Your task to perform on an android device: Clear the shopping cart on newegg.com. Search for "macbook pro" on newegg.com, select the first entry, add it to the cart, then select checkout. Image 0: 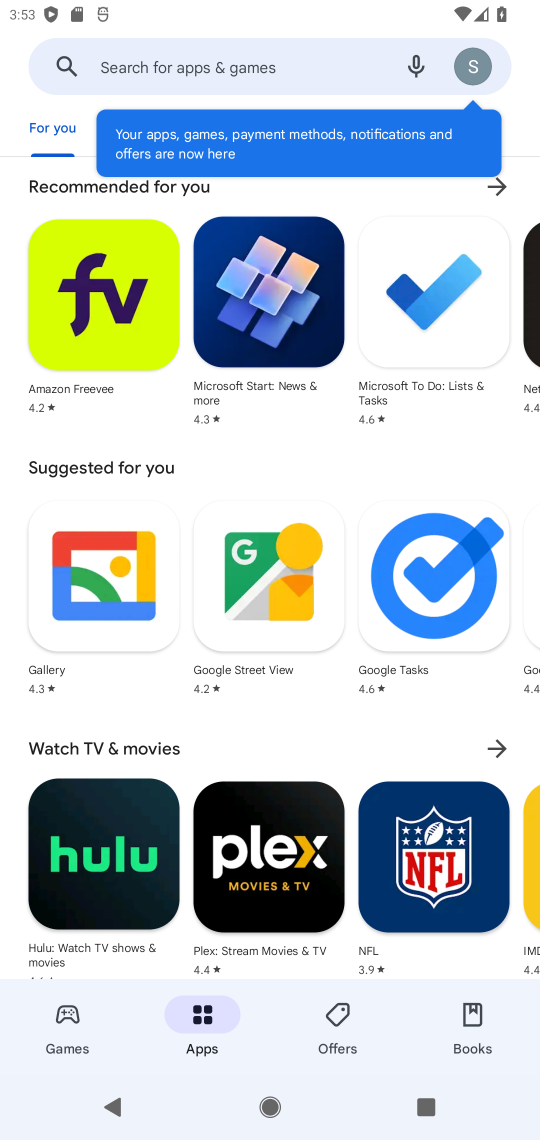
Step 0: press home button
Your task to perform on an android device: Clear the shopping cart on newegg.com. Search for "macbook pro" on newegg.com, select the first entry, add it to the cart, then select checkout. Image 1: 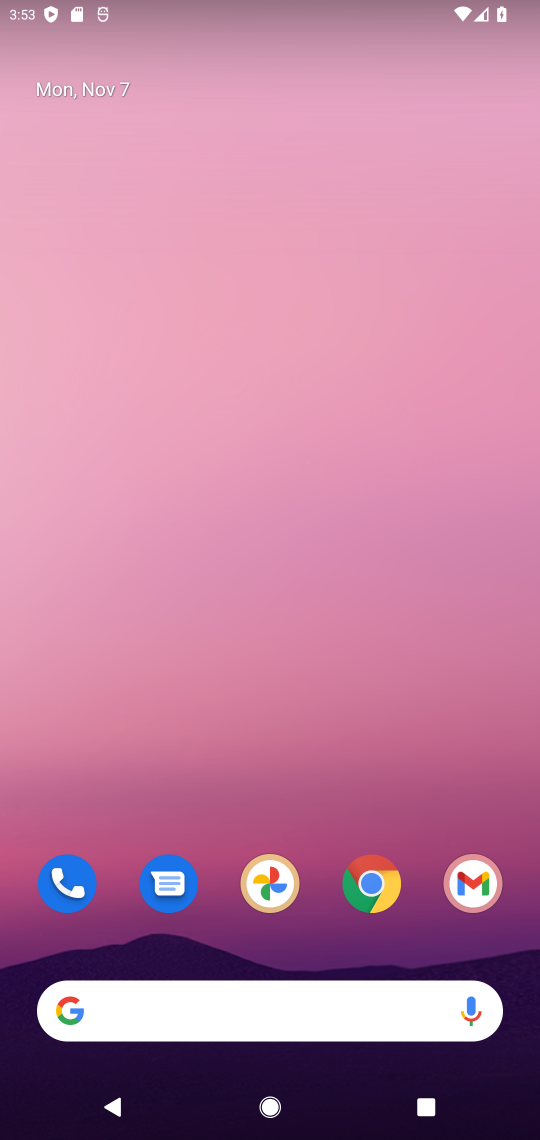
Step 1: click (369, 882)
Your task to perform on an android device: Clear the shopping cart on newegg.com. Search for "macbook pro" on newegg.com, select the first entry, add it to the cart, then select checkout. Image 2: 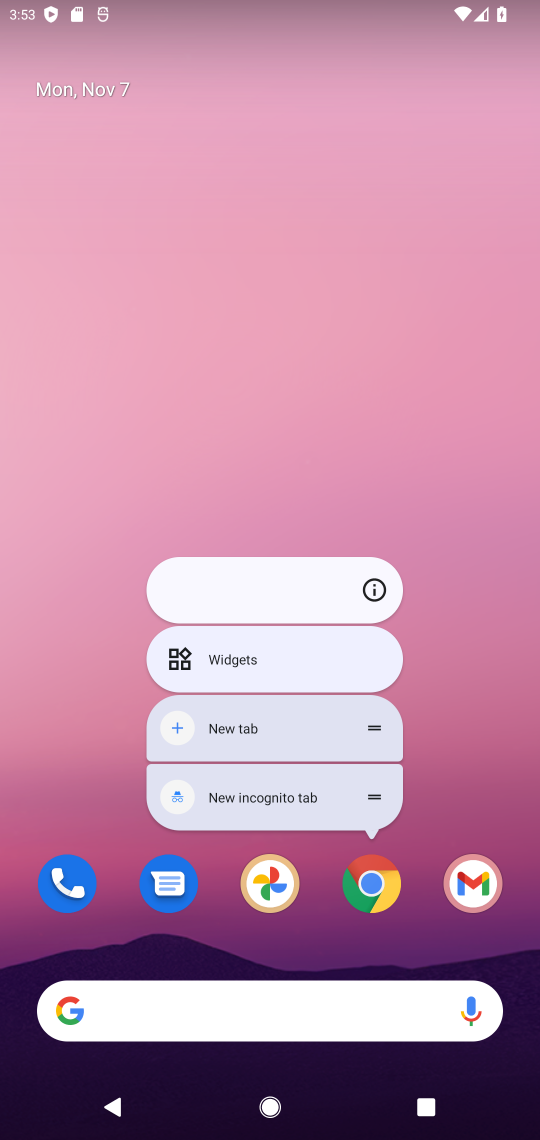
Step 2: click (368, 884)
Your task to perform on an android device: Clear the shopping cart on newegg.com. Search for "macbook pro" on newegg.com, select the first entry, add it to the cart, then select checkout. Image 3: 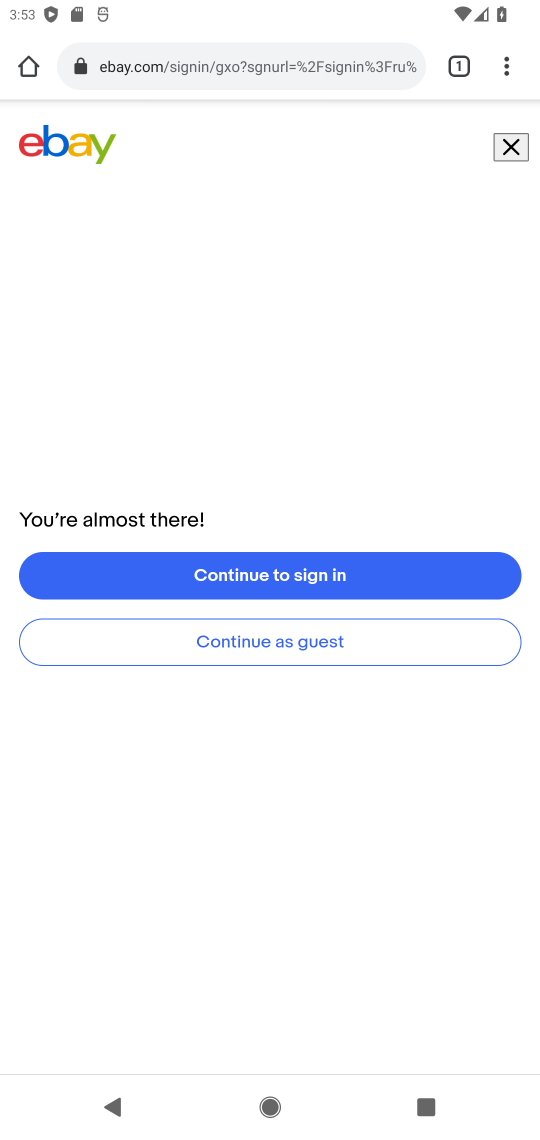
Step 3: click (340, 63)
Your task to perform on an android device: Clear the shopping cart on newegg.com. Search for "macbook pro" on newegg.com, select the first entry, add it to the cart, then select checkout. Image 4: 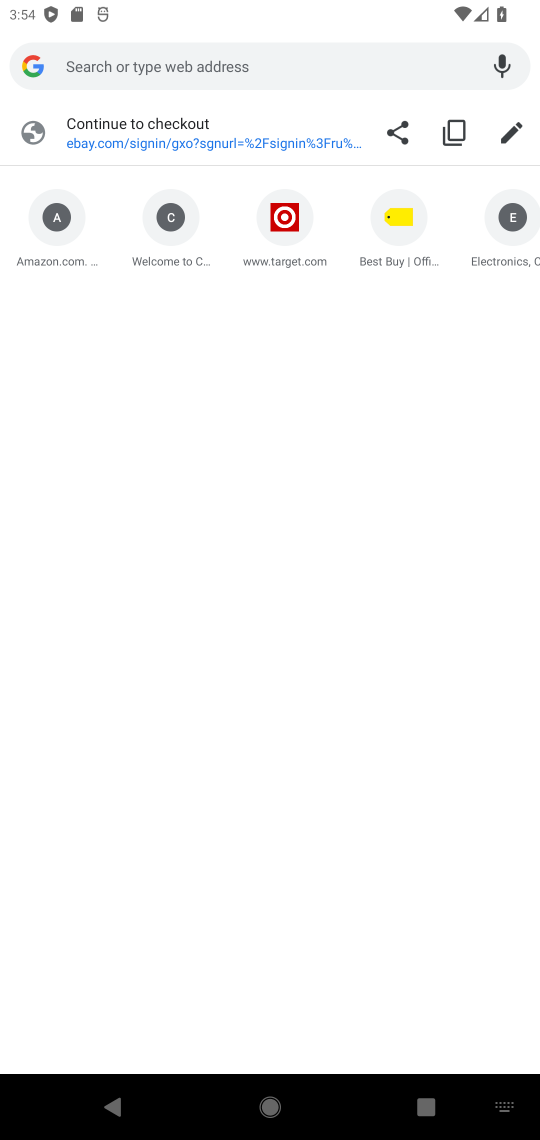
Step 4: type "newegg"
Your task to perform on an android device: Clear the shopping cart on newegg.com. Search for "macbook pro" on newegg.com, select the first entry, add it to the cart, then select checkout. Image 5: 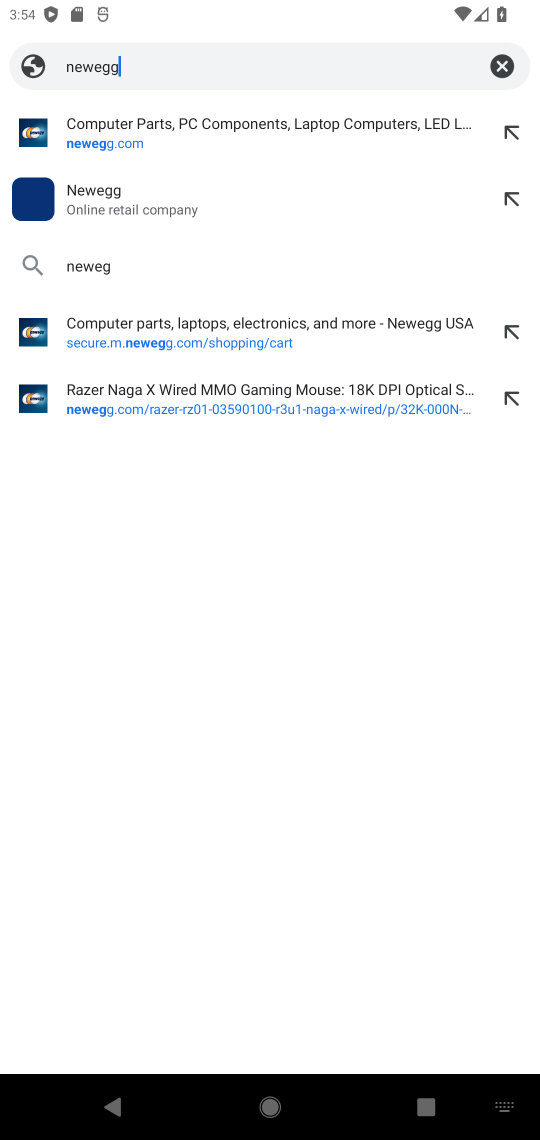
Step 5: press enter
Your task to perform on an android device: Clear the shopping cart on newegg.com. Search for "macbook pro" on newegg.com, select the first entry, add it to the cart, then select checkout. Image 6: 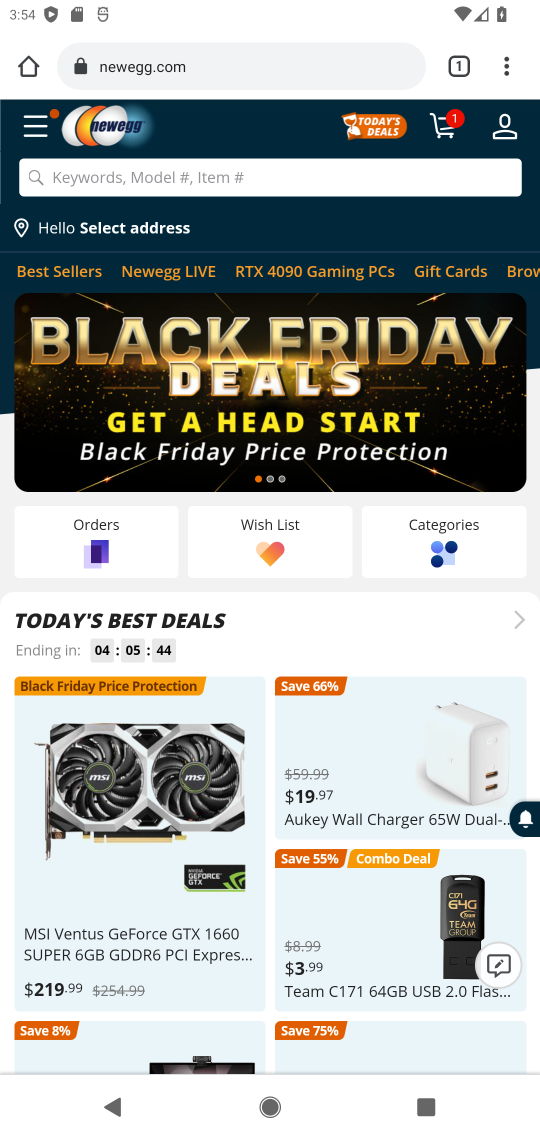
Step 6: click (151, 172)
Your task to perform on an android device: Clear the shopping cart on newegg.com. Search for "macbook pro" on newegg.com, select the first entry, add it to the cart, then select checkout. Image 7: 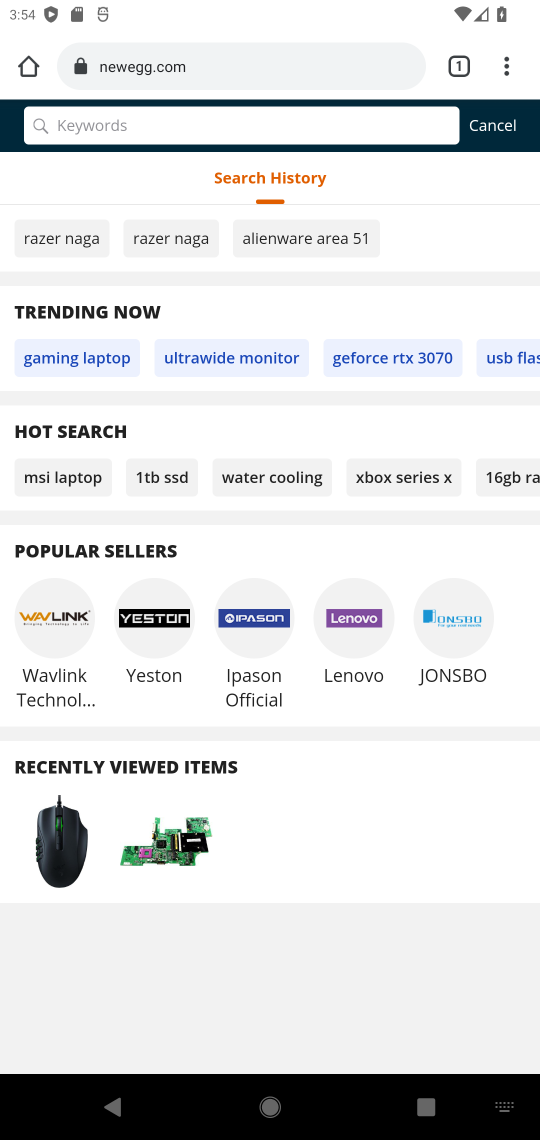
Step 7: type "macbook pro"
Your task to perform on an android device: Clear the shopping cart on newegg.com. Search for "macbook pro" on newegg.com, select the first entry, add it to the cart, then select checkout. Image 8: 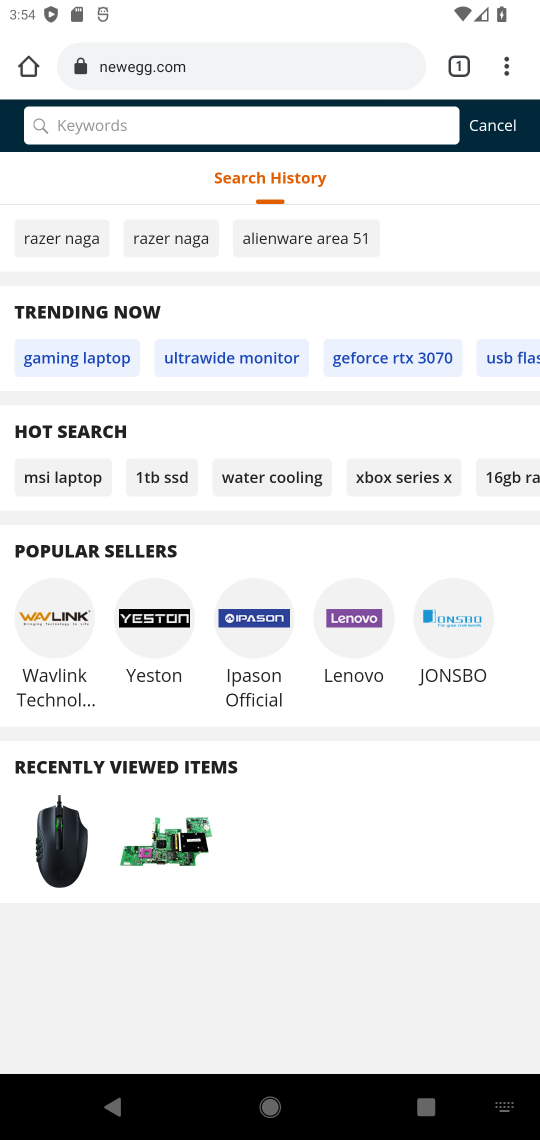
Step 8: press enter
Your task to perform on an android device: Clear the shopping cart on newegg.com. Search for "macbook pro" on newegg.com, select the first entry, add it to the cart, then select checkout. Image 9: 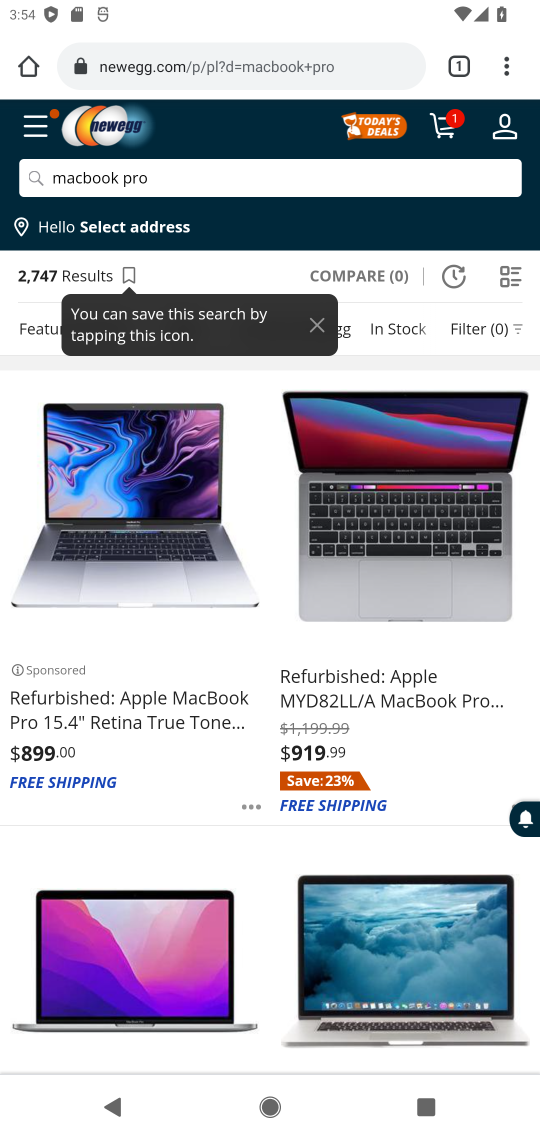
Step 9: click (134, 698)
Your task to perform on an android device: Clear the shopping cart on newegg.com. Search for "macbook pro" on newegg.com, select the first entry, add it to the cart, then select checkout. Image 10: 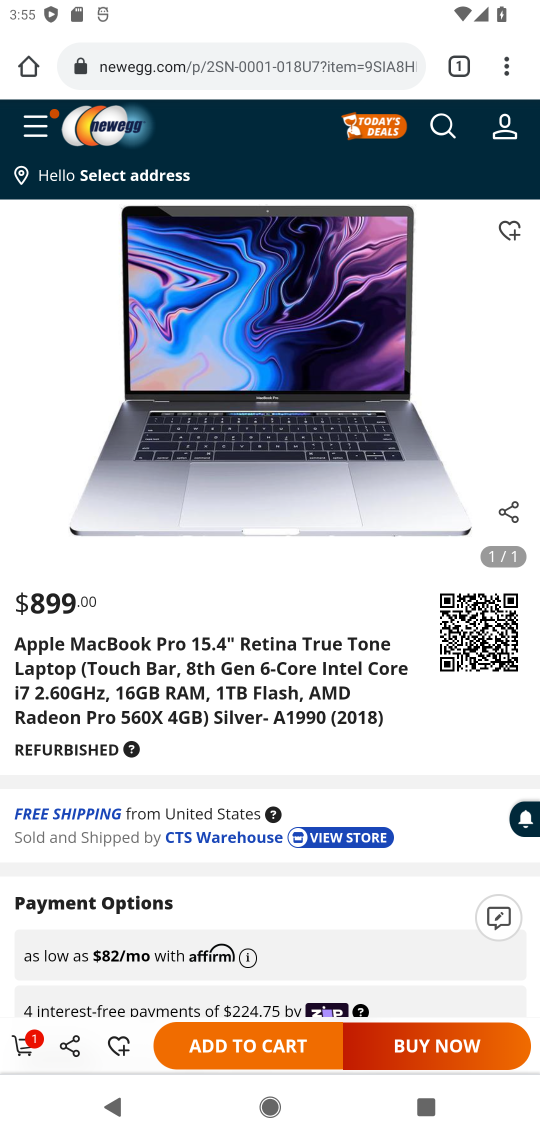
Step 10: click (236, 1053)
Your task to perform on an android device: Clear the shopping cart on newegg.com. Search for "macbook pro" on newegg.com, select the first entry, add it to the cart, then select checkout. Image 11: 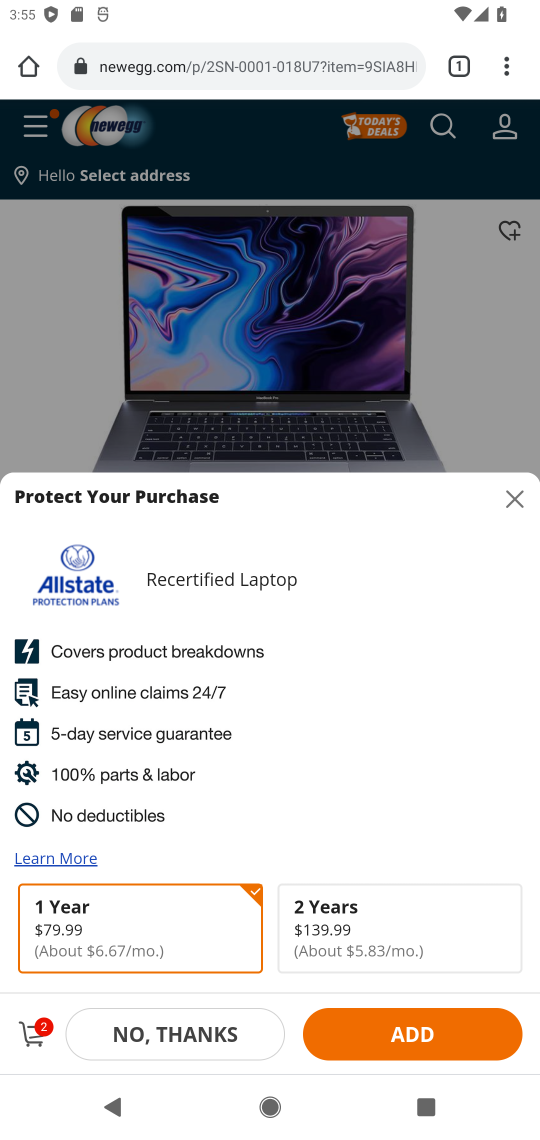
Step 11: click (141, 1033)
Your task to perform on an android device: Clear the shopping cart on newegg.com. Search for "macbook pro" on newegg.com, select the first entry, add it to the cart, then select checkout. Image 12: 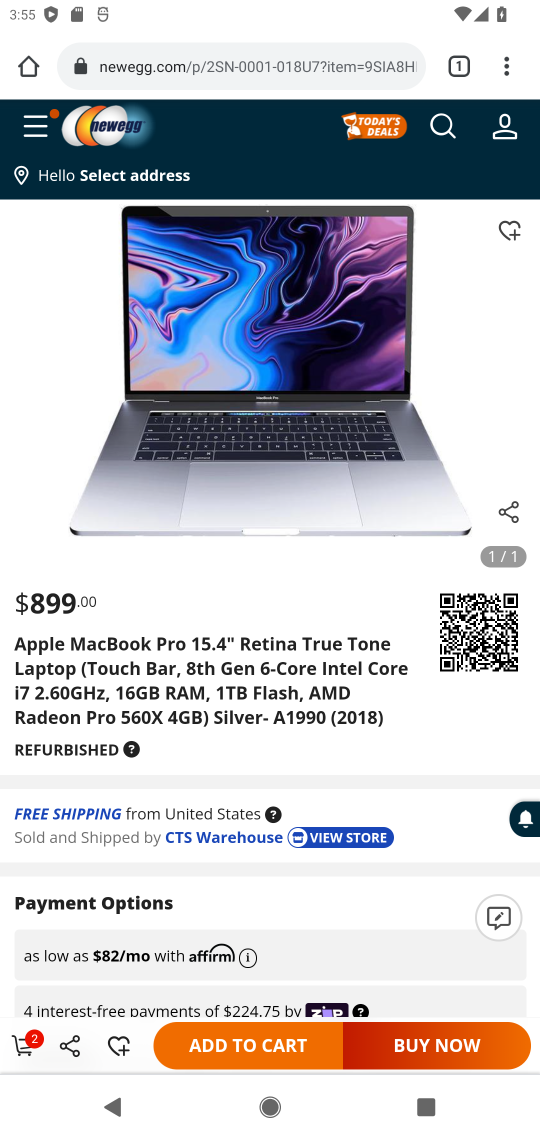
Step 12: click (19, 1047)
Your task to perform on an android device: Clear the shopping cart on newegg.com. Search for "macbook pro" on newegg.com, select the first entry, add it to the cart, then select checkout. Image 13: 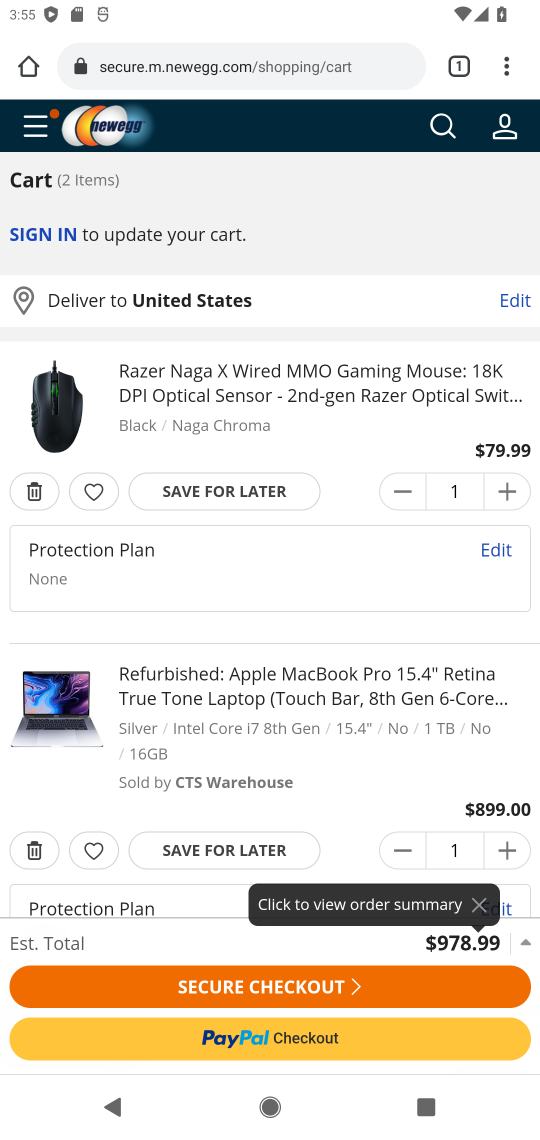
Step 13: click (30, 488)
Your task to perform on an android device: Clear the shopping cart on newegg.com. Search for "macbook pro" on newegg.com, select the first entry, add it to the cart, then select checkout. Image 14: 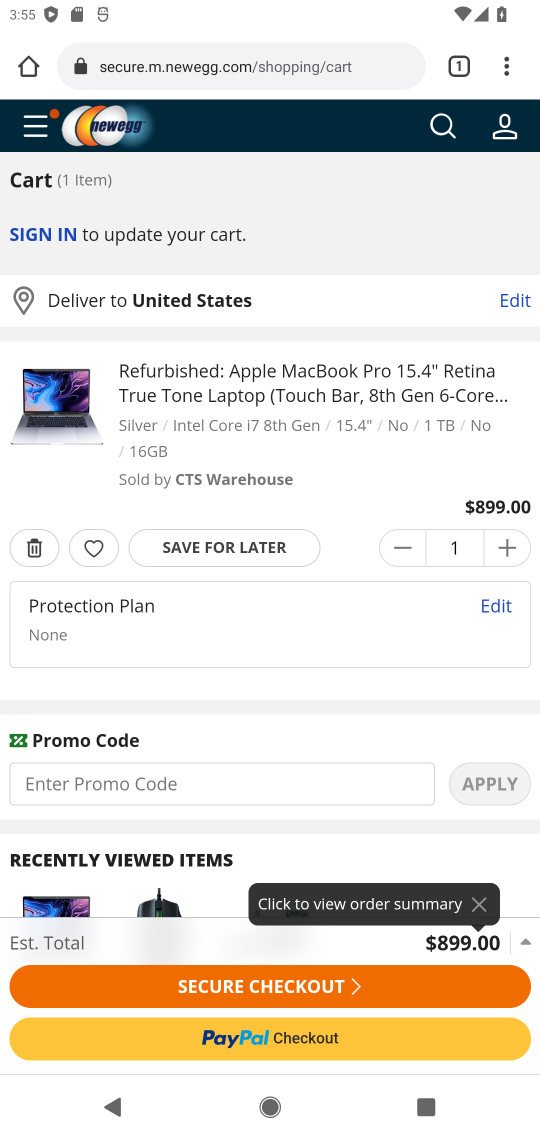
Step 14: click (275, 982)
Your task to perform on an android device: Clear the shopping cart on newegg.com. Search for "macbook pro" on newegg.com, select the first entry, add it to the cart, then select checkout. Image 15: 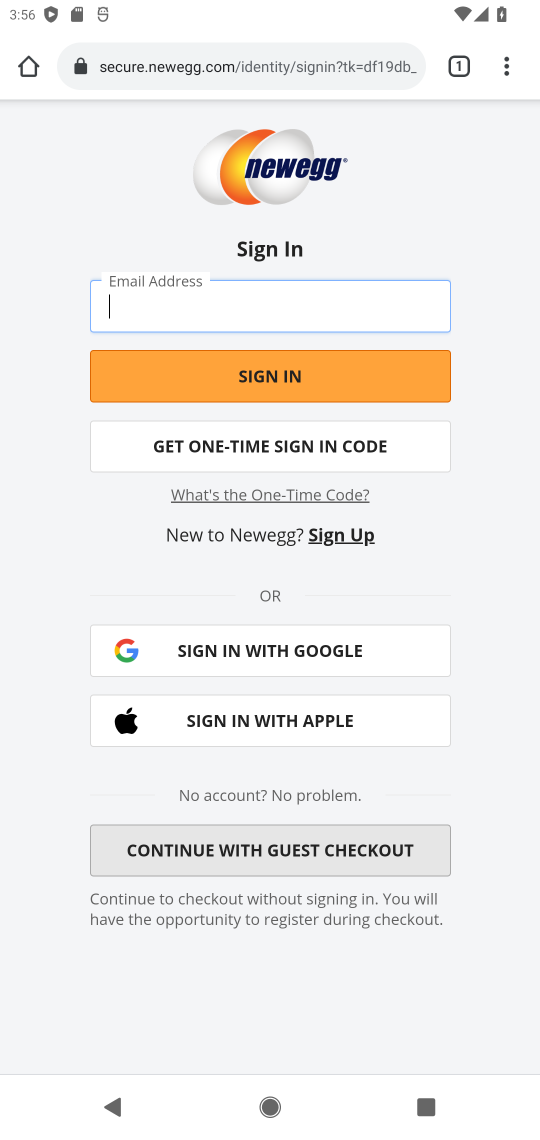
Step 15: task complete